Your task to perform on an android device: Open the web browser Image 0: 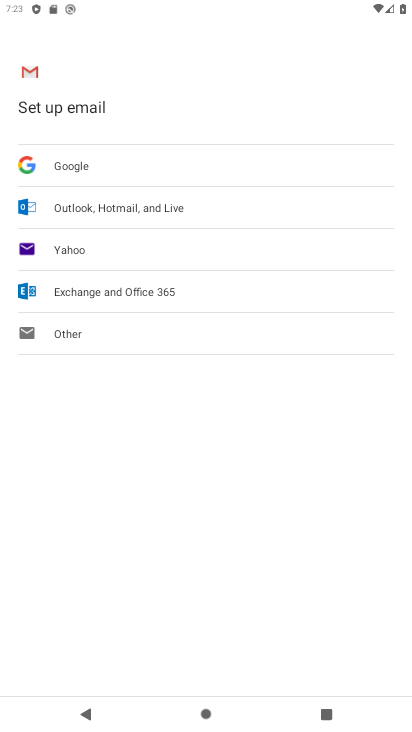
Step 0: press home button
Your task to perform on an android device: Open the web browser Image 1: 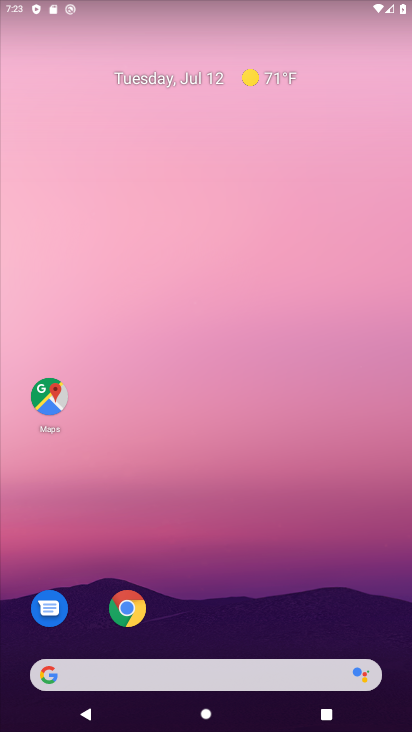
Step 1: click (130, 605)
Your task to perform on an android device: Open the web browser Image 2: 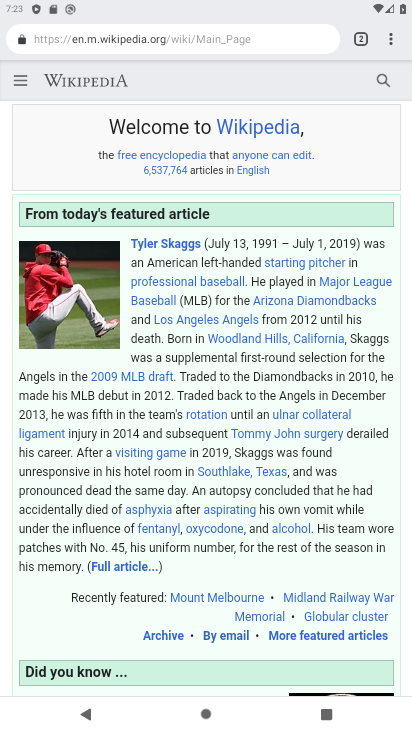
Step 2: task complete